Your task to perform on an android device: turn smart compose on in the gmail app Image 0: 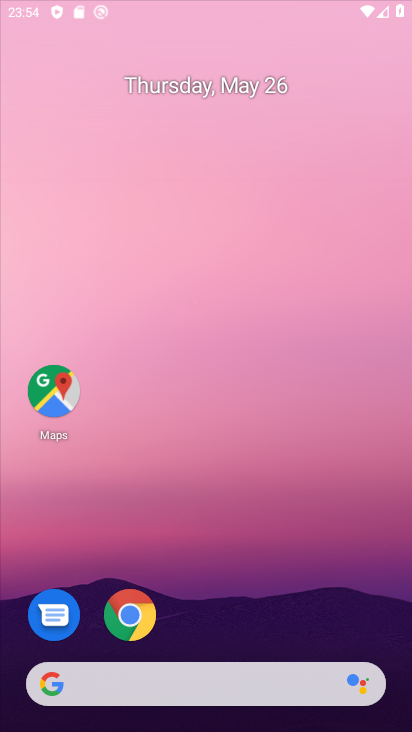
Step 0: click (240, 91)
Your task to perform on an android device: turn smart compose on in the gmail app Image 1: 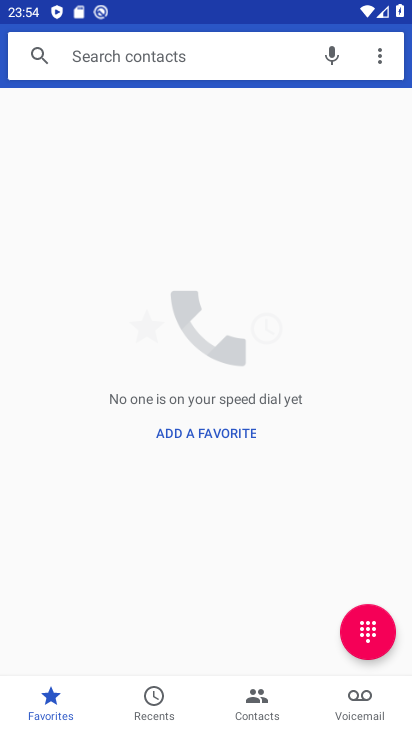
Step 1: press home button
Your task to perform on an android device: turn smart compose on in the gmail app Image 2: 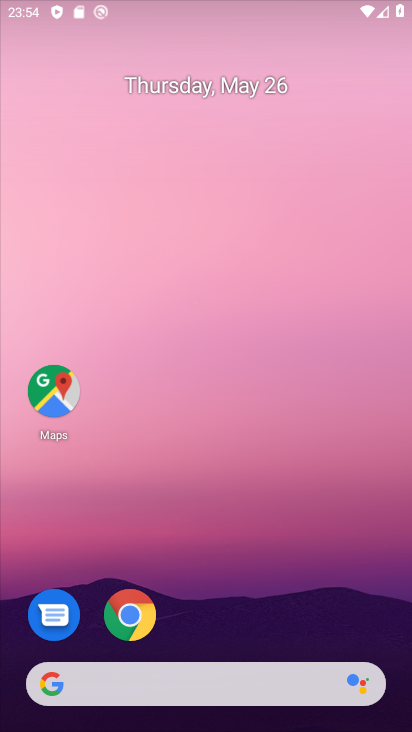
Step 2: drag from (244, 618) to (234, 86)
Your task to perform on an android device: turn smart compose on in the gmail app Image 3: 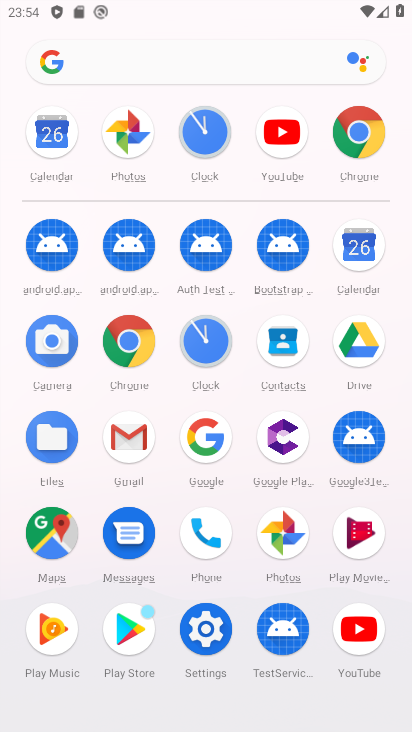
Step 3: click (145, 427)
Your task to perform on an android device: turn smart compose on in the gmail app Image 4: 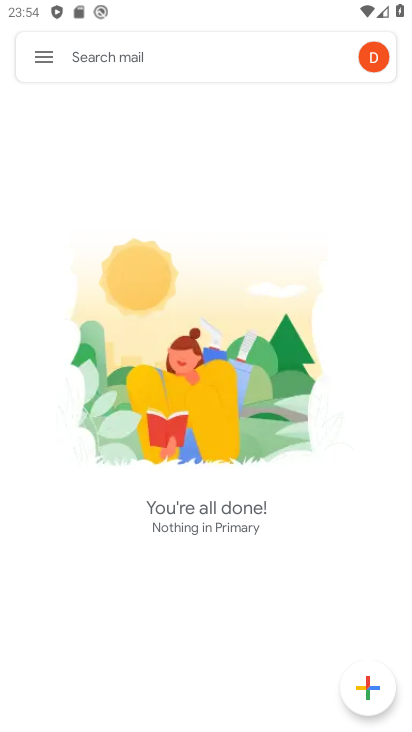
Step 4: click (45, 73)
Your task to perform on an android device: turn smart compose on in the gmail app Image 5: 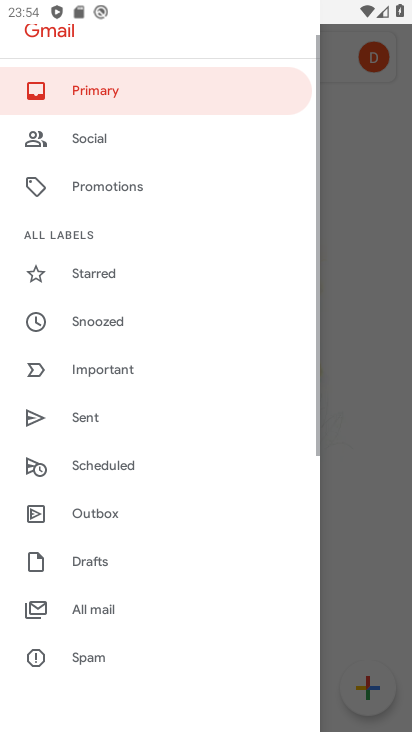
Step 5: drag from (93, 682) to (102, 417)
Your task to perform on an android device: turn smart compose on in the gmail app Image 6: 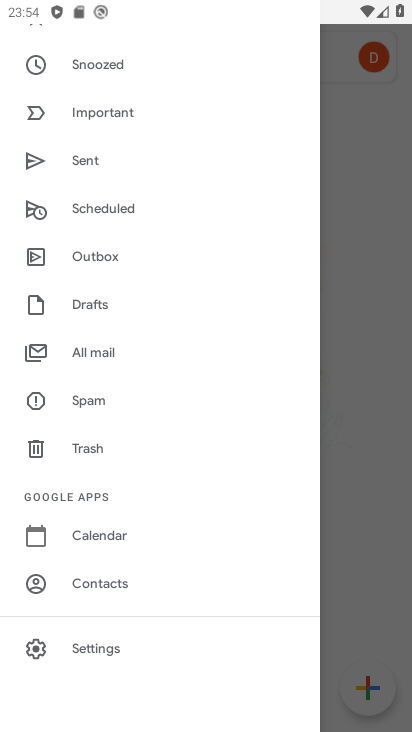
Step 6: click (110, 653)
Your task to perform on an android device: turn smart compose on in the gmail app Image 7: 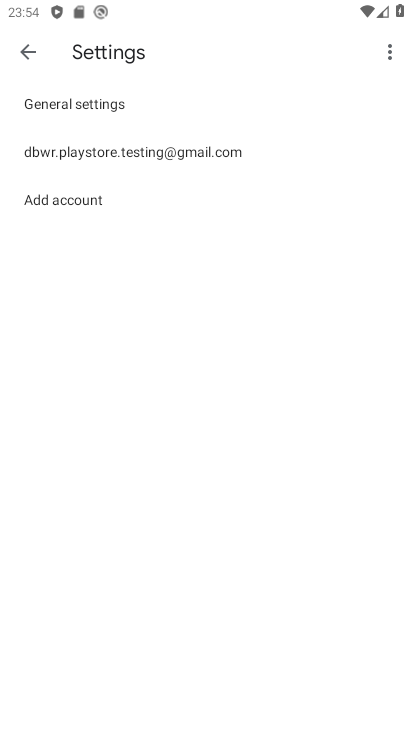
Step 7: click (226, 175)
Your task to perform on an android device: turn smart compose on in the gmail app Image 8: 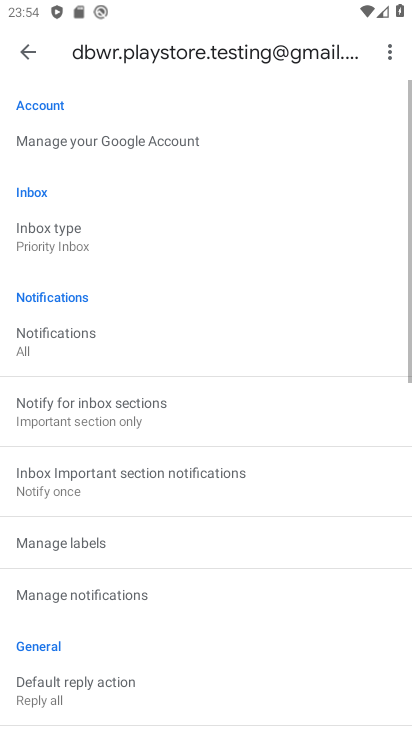
Step 8: task complete